Your task to perform on an android device: Show me productivity apps on the Play Store Image 0: 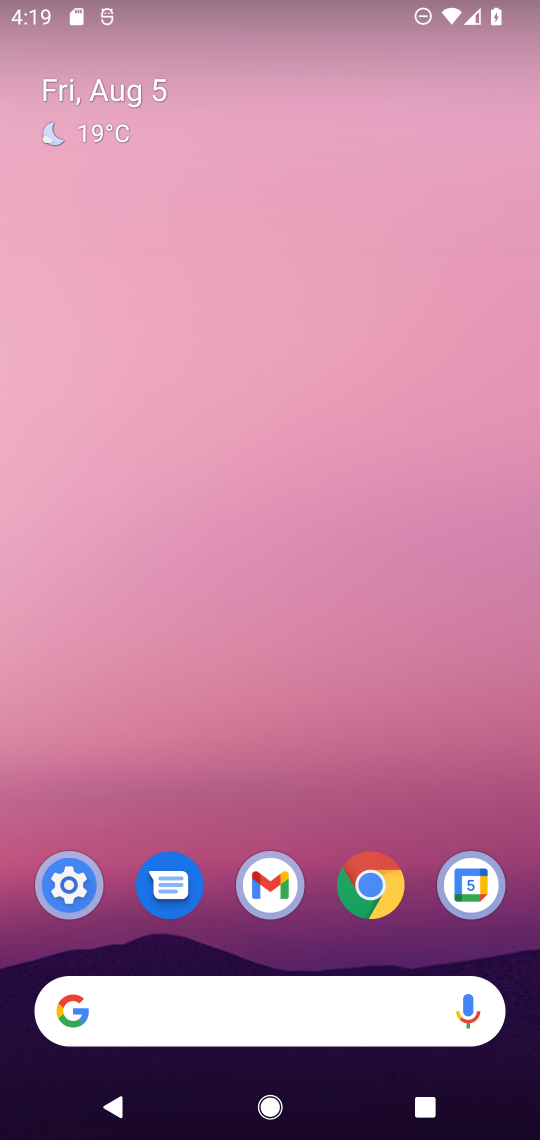
Step 0: drag from (335, 959) to (328, 260)
Your task to perform on an android device: Show me productivity apps on the Play Store Image 1: 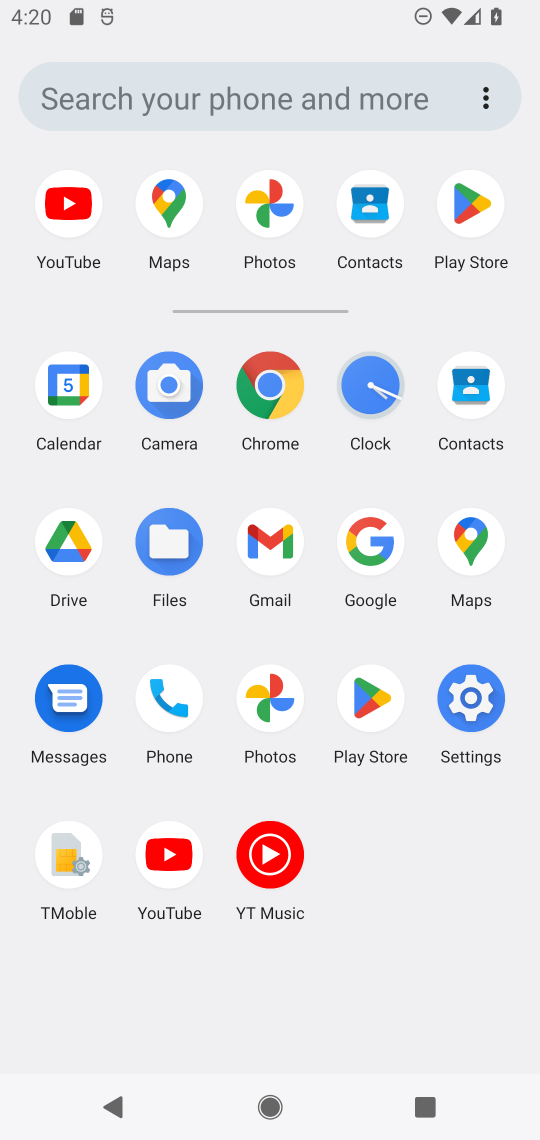
Step 1: click (363, 691)
Your task to perform on an android device: Show me productivity apps on the Play Store Image 2: 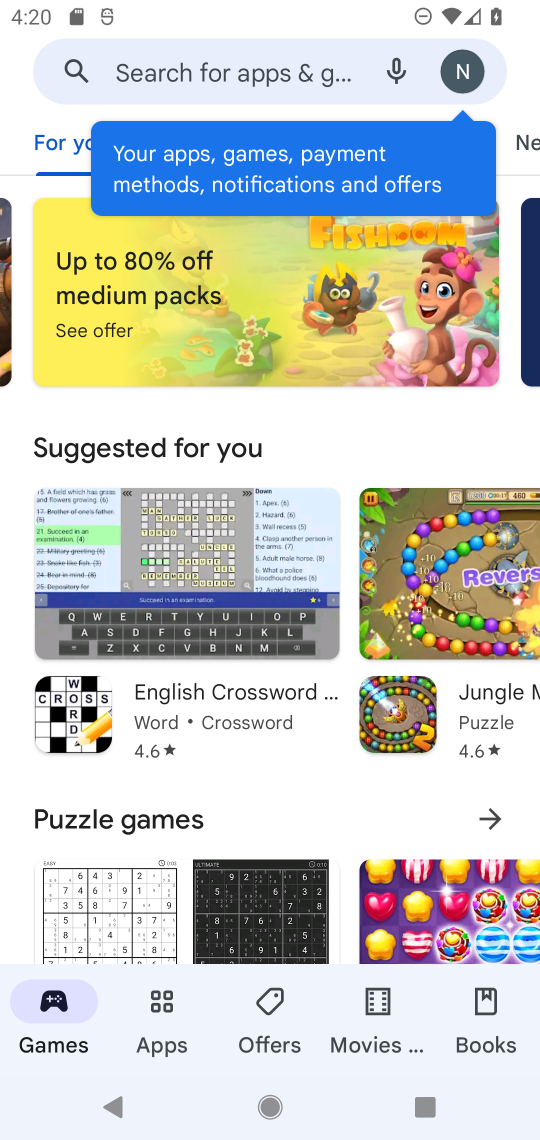
Step 2: click (164, 1010)
Your task to perform on an android device: Show me productivity apps on the Play Store Image 3: 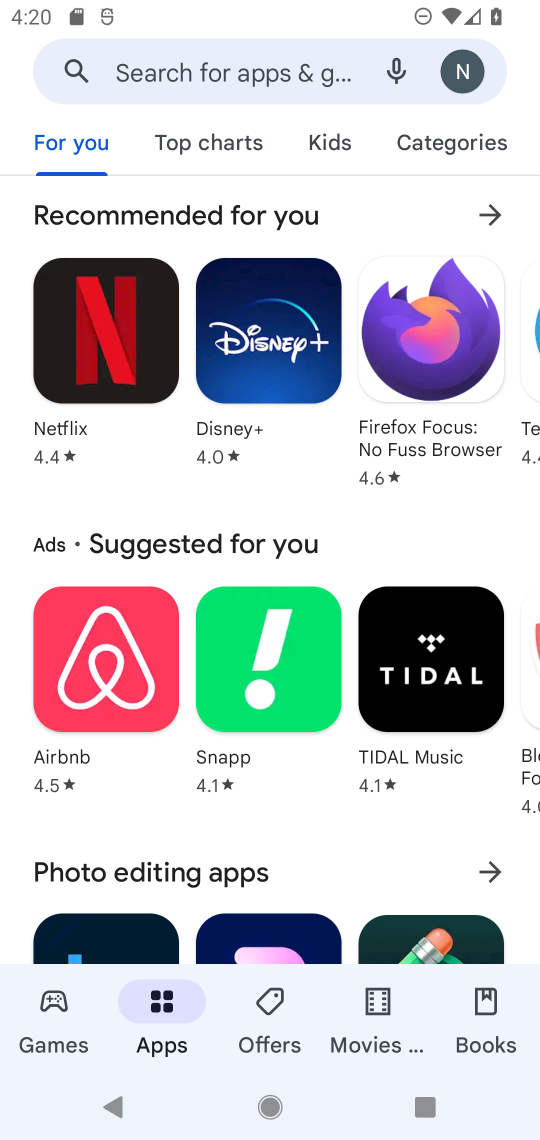
Step 3: click (459, 136)
Your task to perform on an android device: Show me productivity apps on the Play Store Image 4: 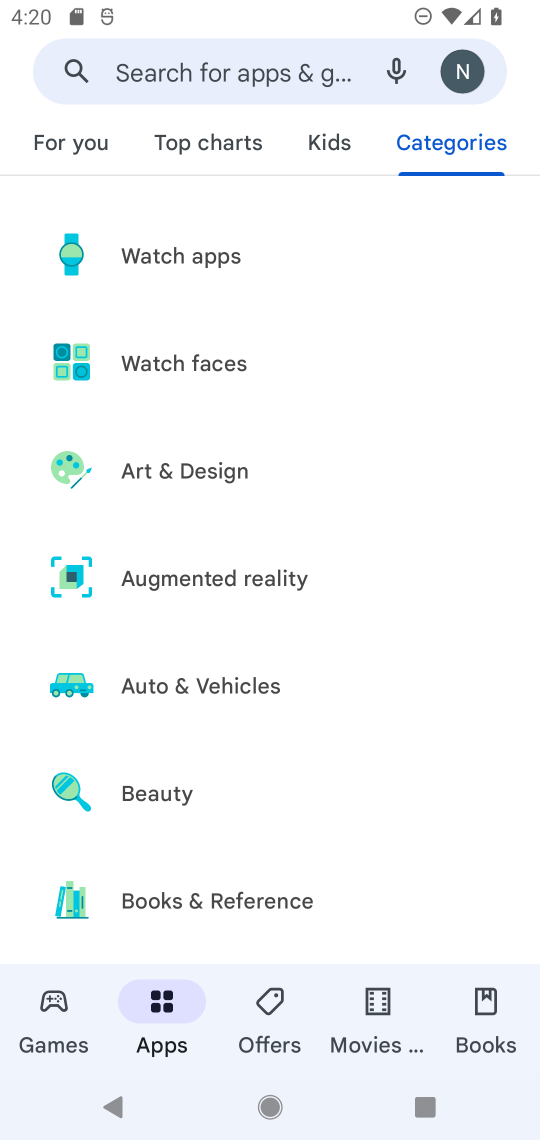
Step 4: drag from (220, 892) to (220, 431)
Your task to perform on an android device: Show me productivity apps on the Play Store Image 5: 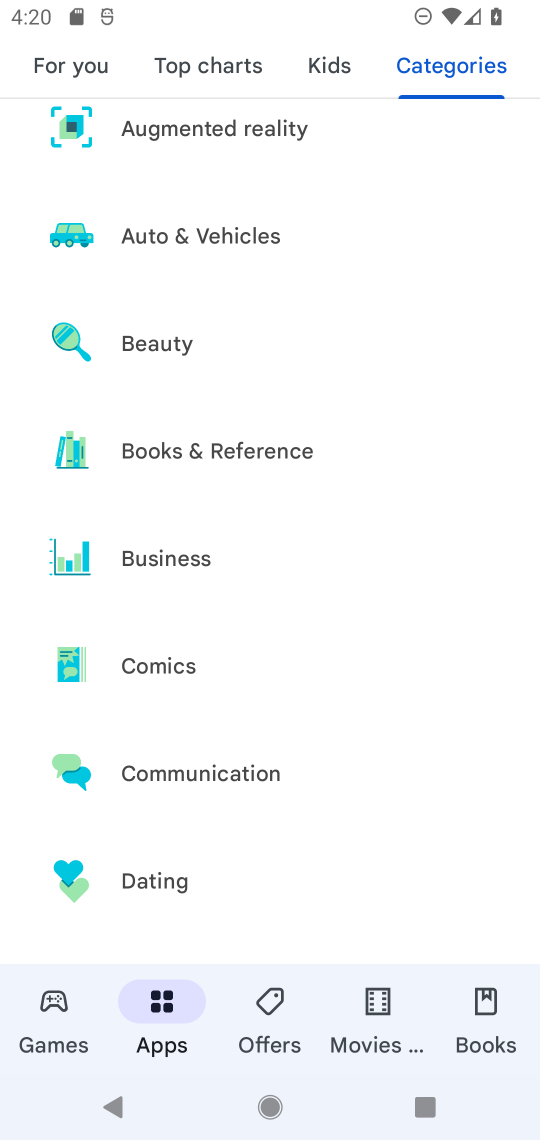
Step 5: drag from (199, 909) to (191, 464)
Your task to perform on an android device: Show me productivity apps on the Play Store Image 6: 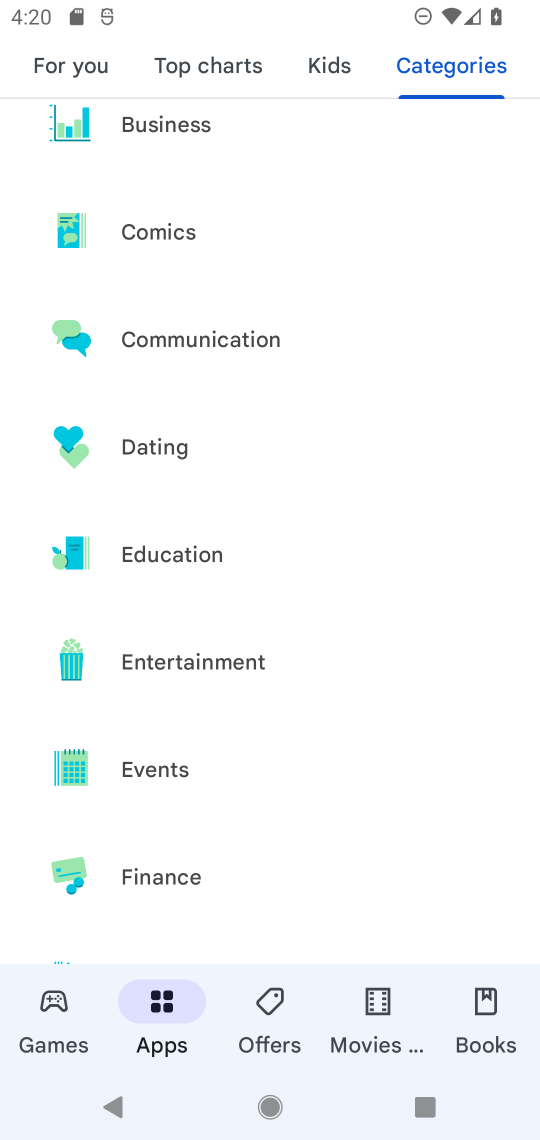
Step 6: drag from (217, 868) to (217, 342)
Your task to perform on an android device: Show me productivity apps on the Play Store Image 7: 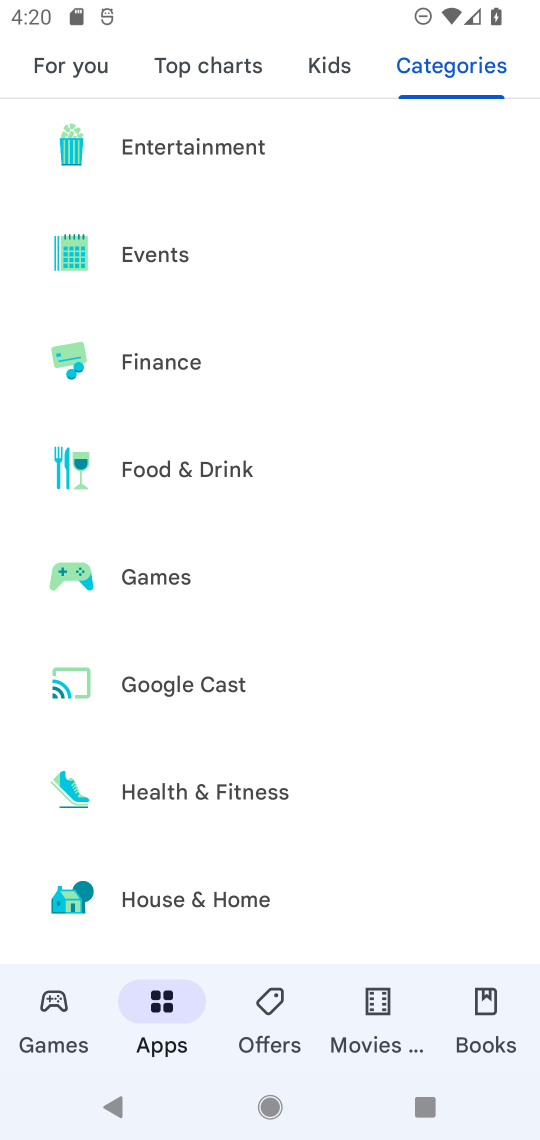
Step 7: drag from (238, 845) to (285, 352)
Your task to perform on an android device: Show me productivity apps on the Play Store Image 8: 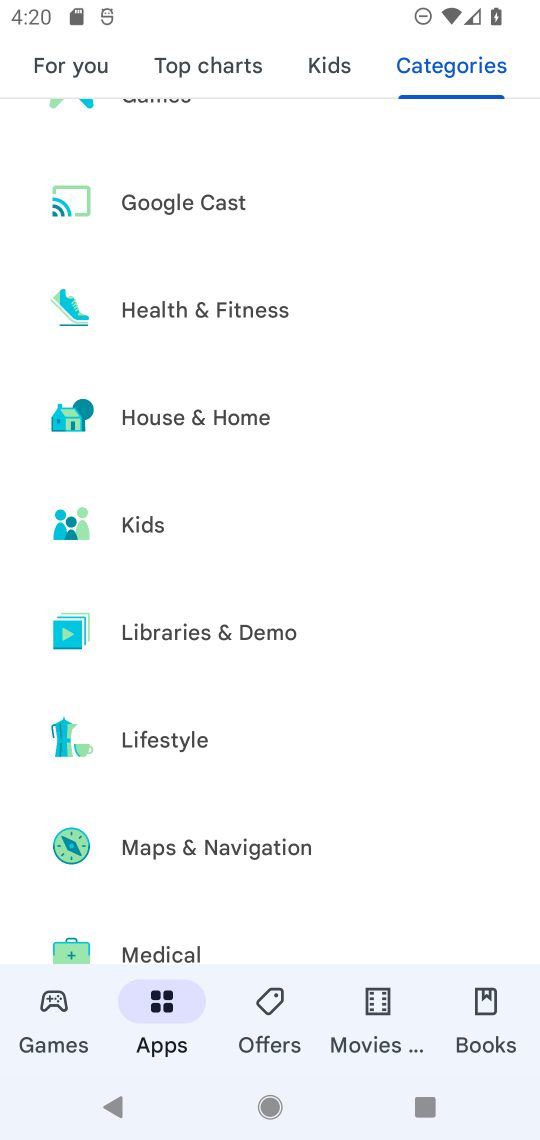
Step 8: drag from (258, 886) to (253, 442)
Your task to perform on an android device: Show me productivity apps on the Play Store Image 9: 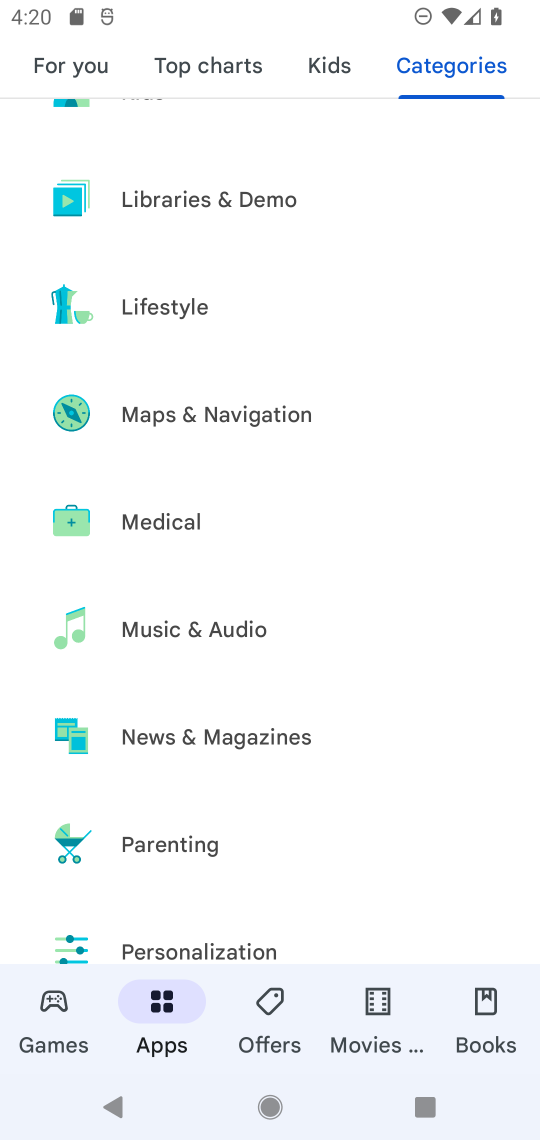
Step 9: drag from (218, 881) to (212, 456)
Your task to perform on an android device: Show me productivity apps on the Play Store Image 10: 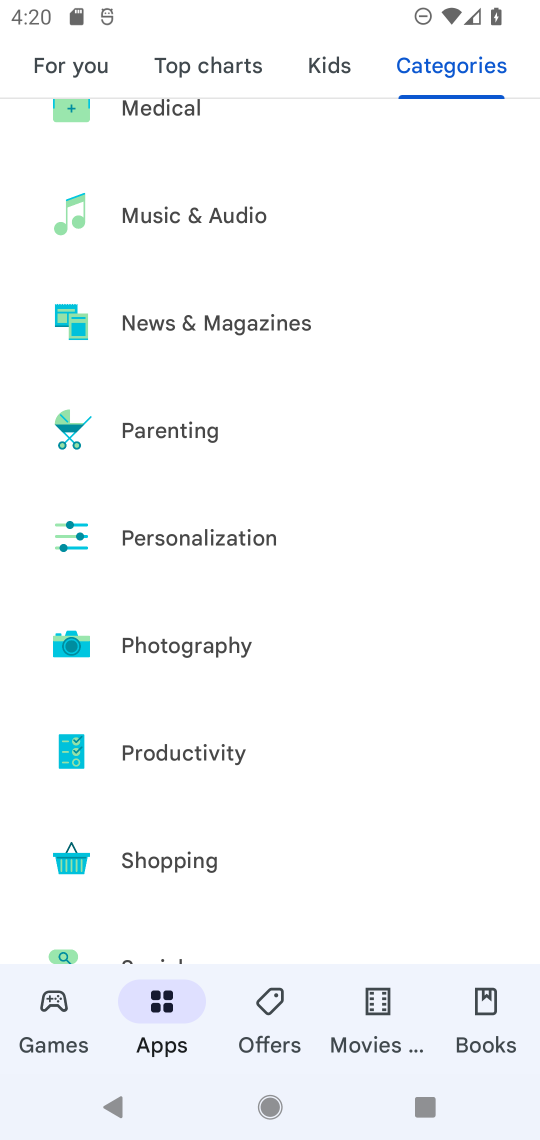
Step 10: click (215, 752)
Your task to perform on an android device: Show me productivity apps on the Play Store Image 11: 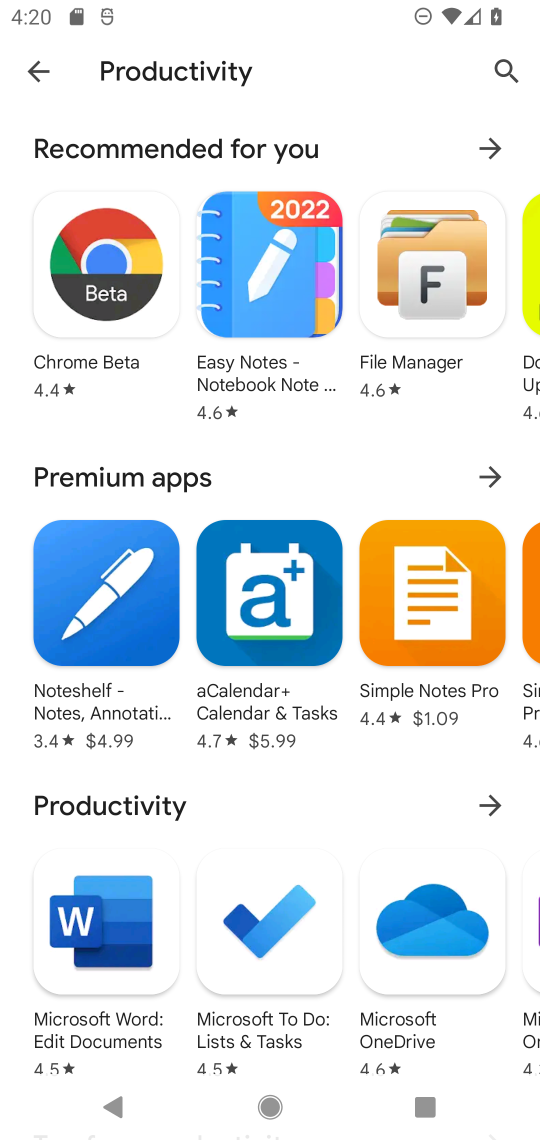
Step 11: task complete